Your task to perform on an android device: Open Google Chrome and open the bookmarks view Image 0: 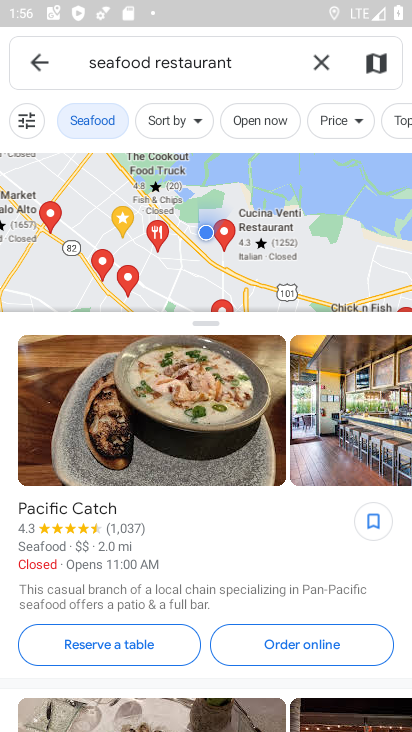
Step 0: press home button
Your task to perform on an android device: Open Google Chrome and open the bookmarks view Image 1: 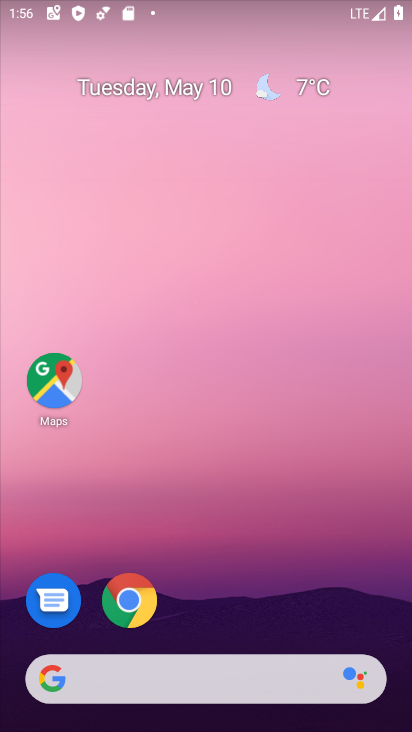
Step 1: drag from (183, 686) to (320, 124)
Your task to perform on an android device: Open Google Chrome and open the bookmarks view Image 2: 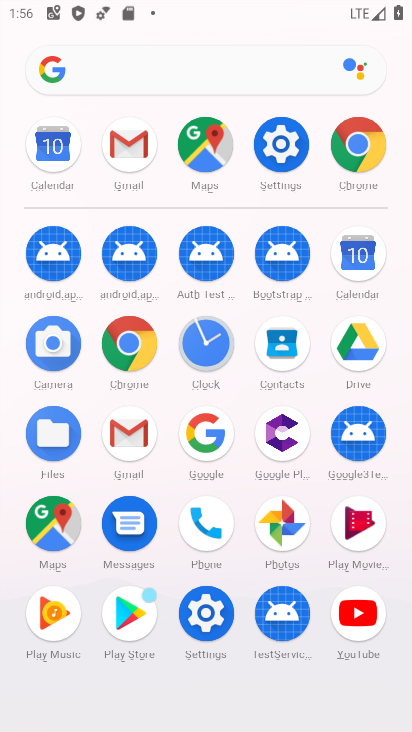
Step 2: click (364, 159)
Your task to perform on an android device: Open Google Chrome and open the bookmarks view Image 3: 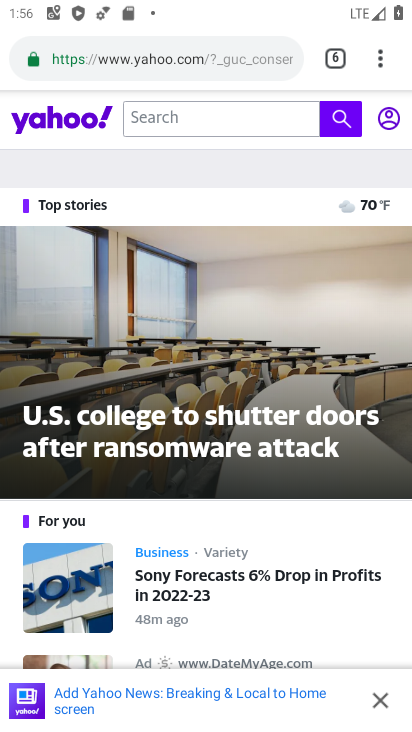
Step 3: task complete